Your task to perform on an android device: open app "Etsy: Buy & Sell Unique Items" (install if not already installed) and go to login screen Image 0: 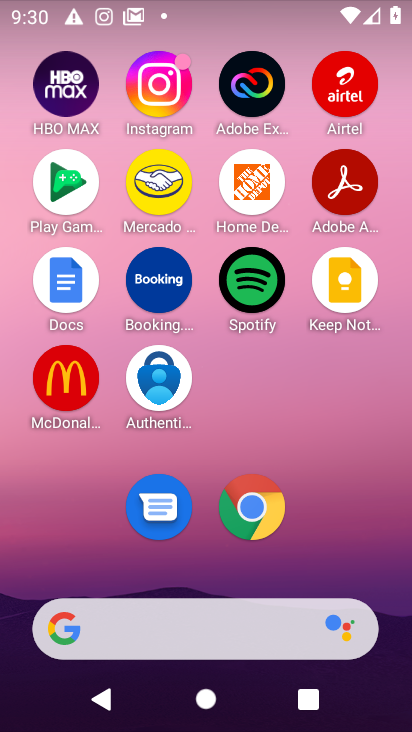
Step 0: drag from (177, 517) to (142, 159)
Your task to perform on an android device: open app "Etsy: Buy & Sell Unique Items" (install if not already installed) and go to login screen Image 1: 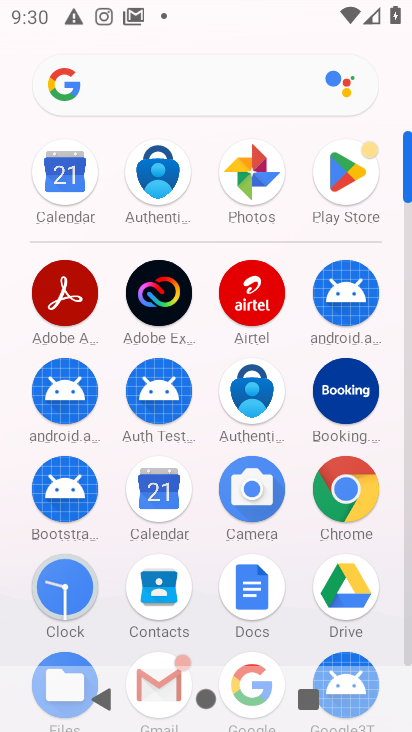
Step 1: click (347, 184)
Your task to perform on an android device: open app "Etsy: Buy & Sell Unique Items" (install if not already installed) and go to login screen Image 2: 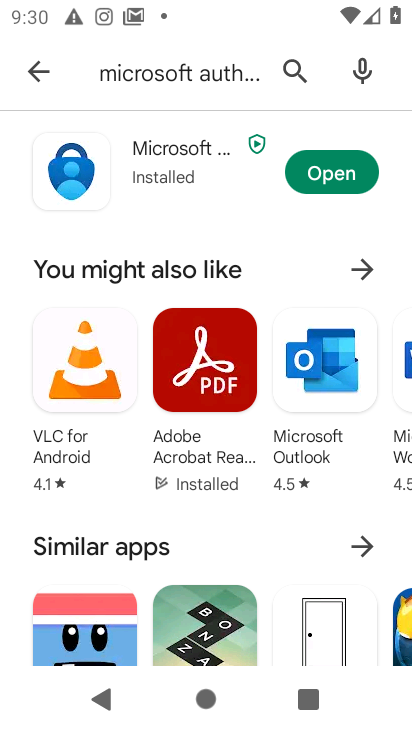
Step 2: click (42, 59)
Your task to perform on an android device: open app "Etsy: Buy & Sell Unique Items" (install if not already installed) and go to login screen Image 3: 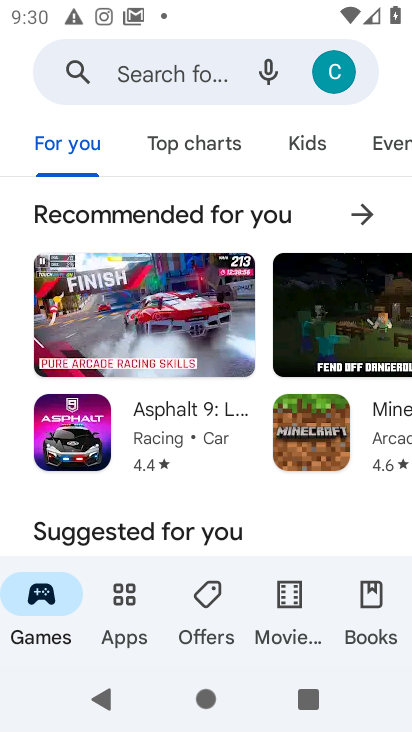
Step 3: click (138, 75)
Your task to perform on an android device: open app "Etsy: Buy & Sell Unique Items" (install if not already installed) and go to login screen Image 4: 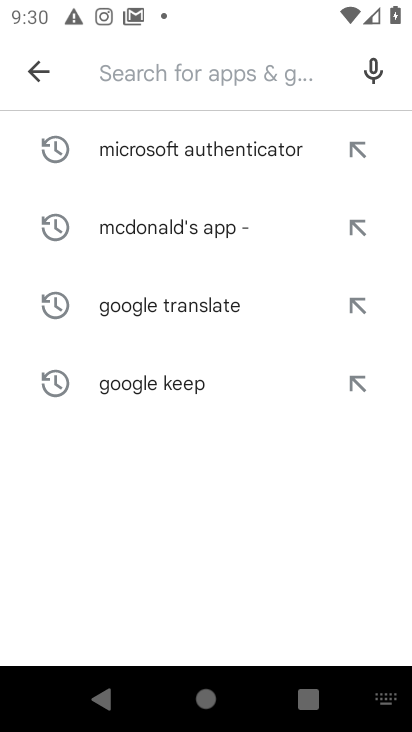
Step 4: type "Etsy"
Your task to perform on an android device: open app "Etsy: Buy & Sell Unique Items" (install if not already installed) and go to login screen Image 5: 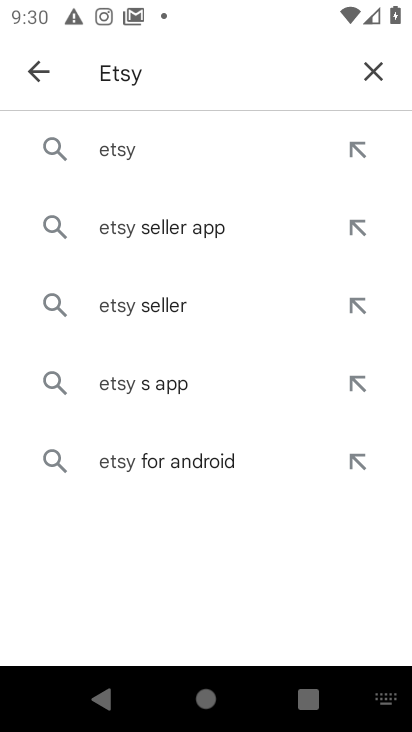
Step 5: click (110, 145)
Your task to perform on an android device: open app "Etsy: Buy & Sell Unique Items" (install if not already installed) and go to login screen Image 6: 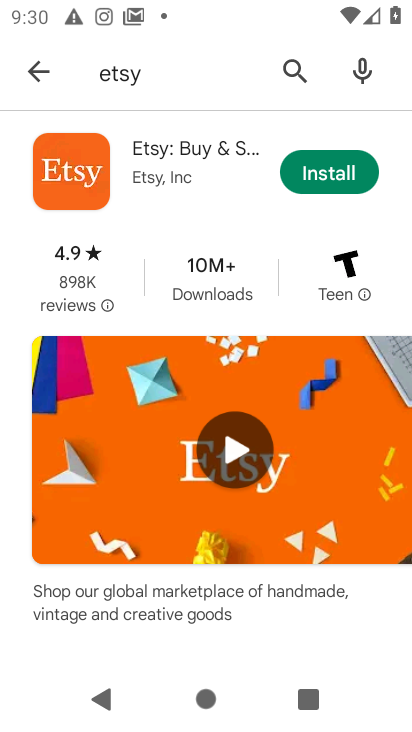
Step 6: click (335, 173)
Your task to perform on an android device: open app "Etsy: Buy & Sell Unique Items" (install if not already installed) and go to login screen Image 7: 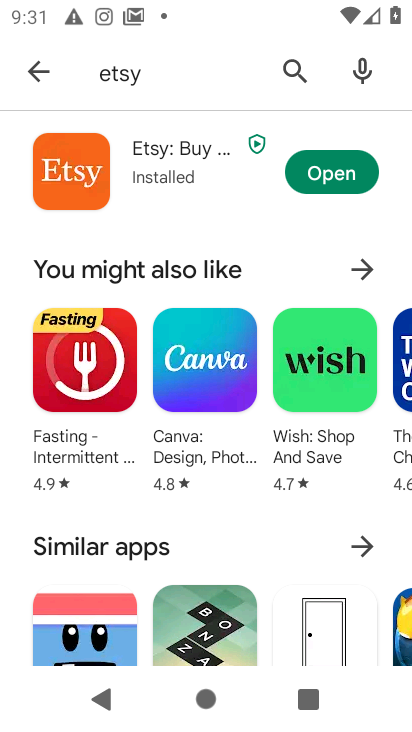
Step 7: click (318, 175)
Your task to perform on an android device: open app "Etsy: Buy & Sell Unique Items" (install if not already installed) and go to login screen Image 8: 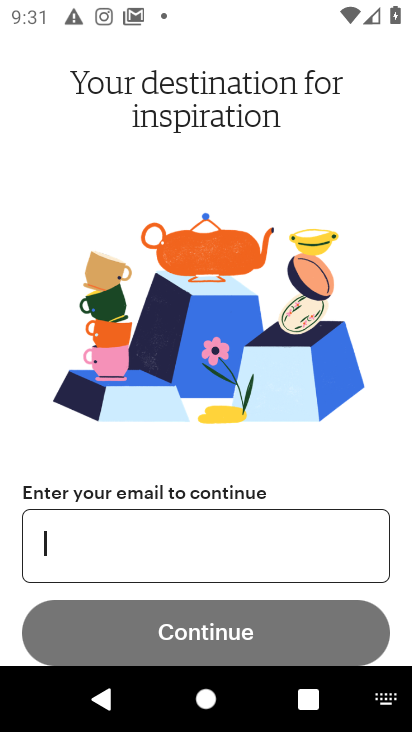
Step 8: task complete